Your task to perform on an android device: see sites visited before in the chrome app Image 0: 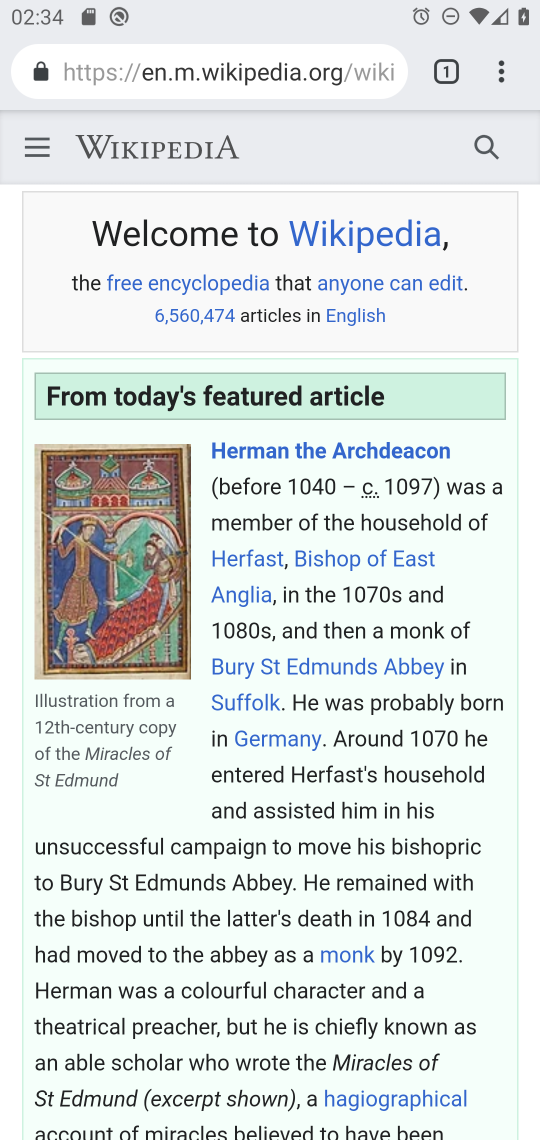
Step 0: click (504, 75)
Your task to perform on an android device: see sites visited before in the chrome app Image 1: 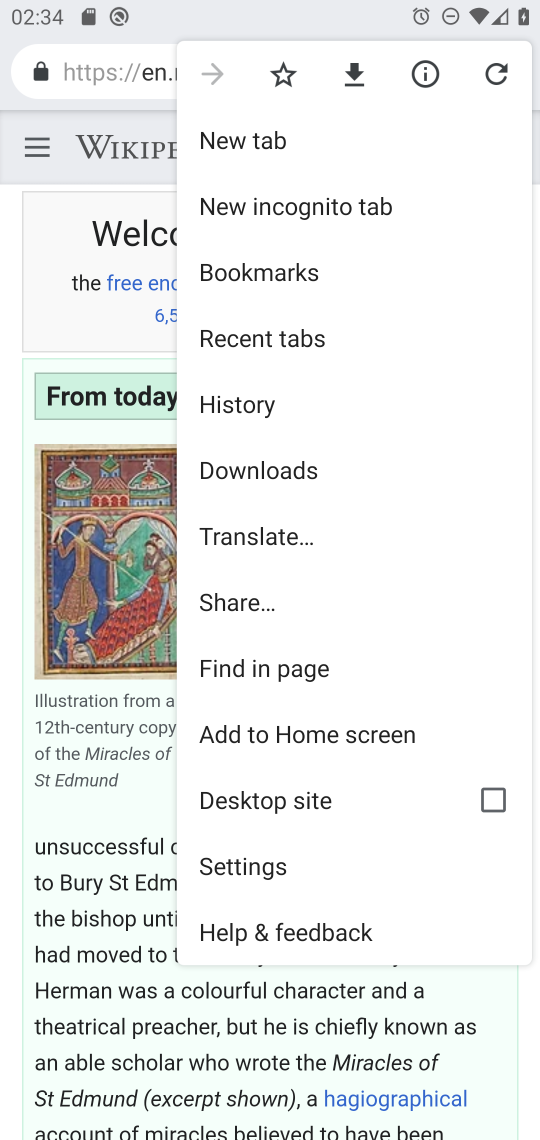
Step 1: click (303, 325)
Your task to perform on an android device: see sites visited before in the chrome app Image 2: 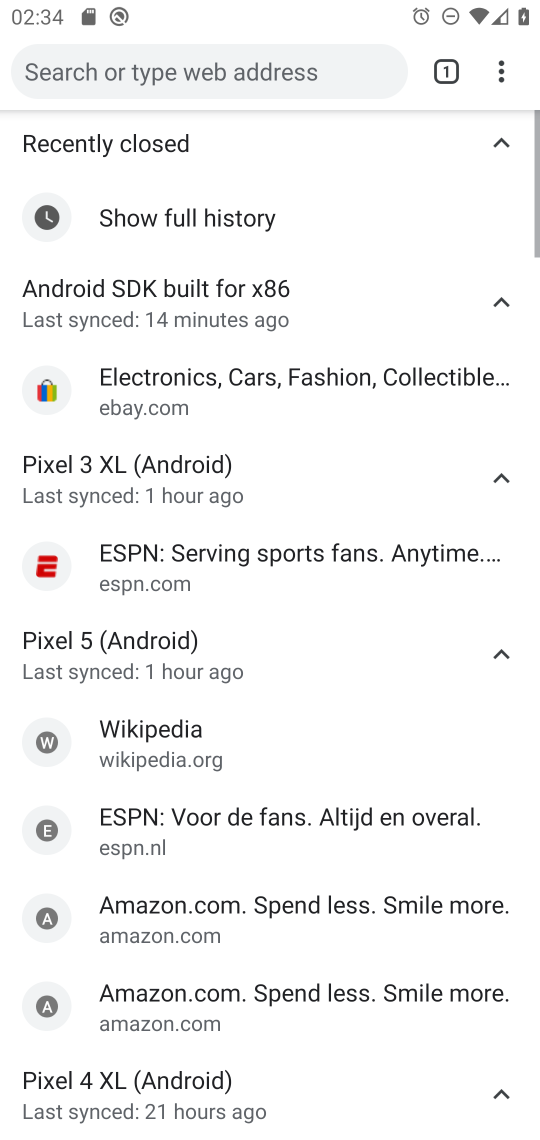
Step 2: task complete